Your task to perform on an android device: turn pop-ups off in chrome Image 0: 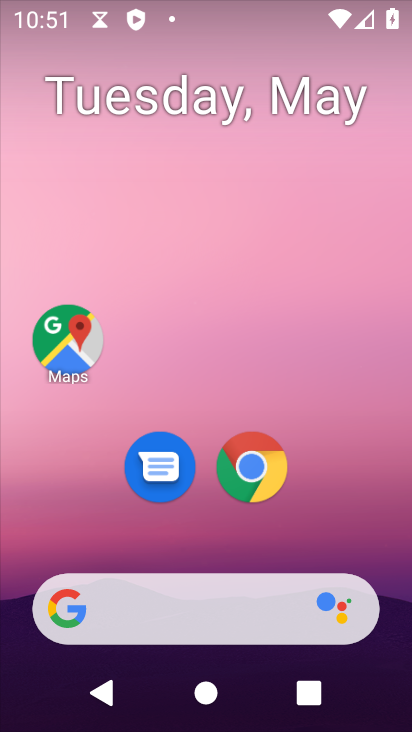
Step 0: drag from (397, 570) to (307, 239)
Your task to perform on an android device: turn pop-ups off in chrome Image 1: 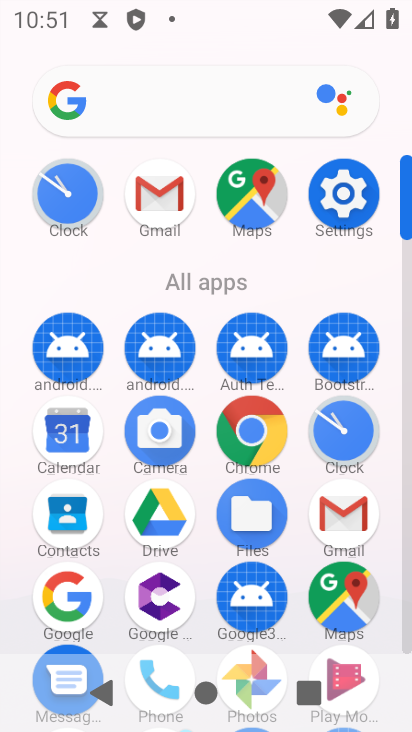
Step 1: click (271, 421)
Your task to perform on an android device: turn pop-ups off in chrome Image 2: 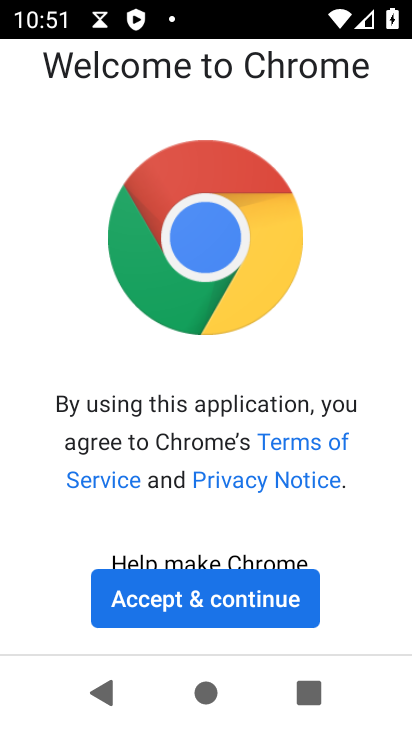
Step 2: click (258, 610)
Your task to perform on an android device: turn pop-ups off in chrome Image 3: 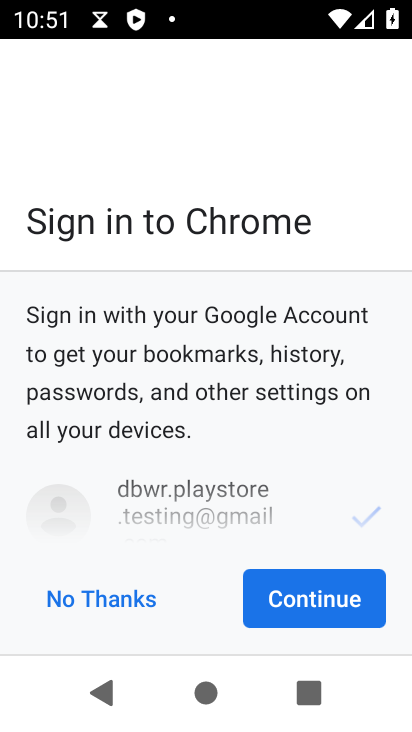
Step 3: click (298, 604)
Your task to perform on an android device: turn pop-ups off in chrome Image 4: 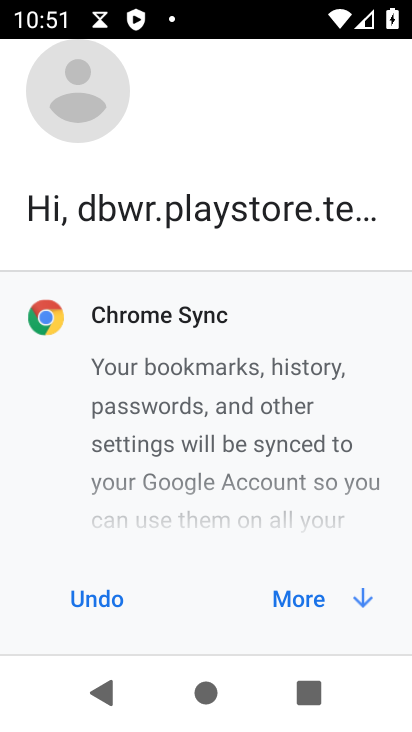
Step 4: click (298, 604)
Your task to perform on an android device: turn pop-ups off in chrome Image 5: 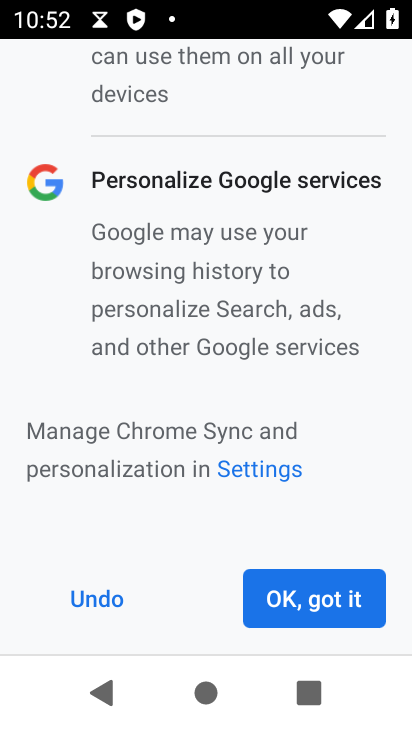
Step 5: click (298, 604)
Your task to perform on an android device: turn pop-ups off in chrome Image 6: 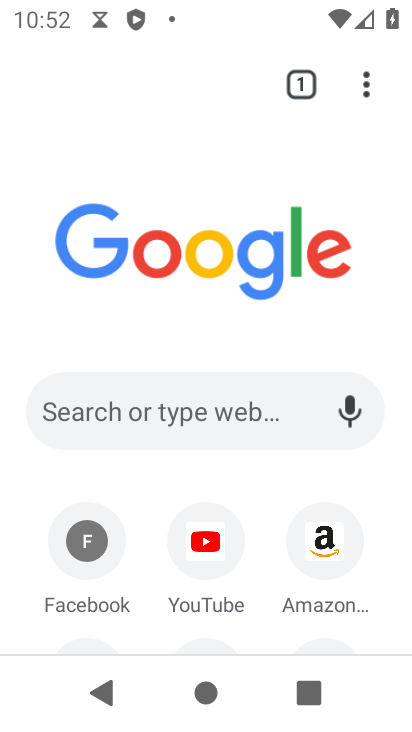
Step 6: click (374, 95)
Your task to perform on an android device: turn pop-ups off in chrome Image 7: 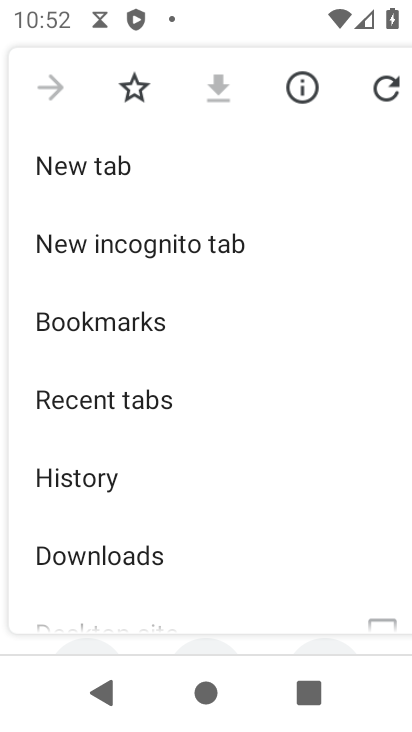
Step 7: drag from (209, 574) to (190, 241)
Your task to perform on an android device: turn pop-ups off in chrome Image 8: 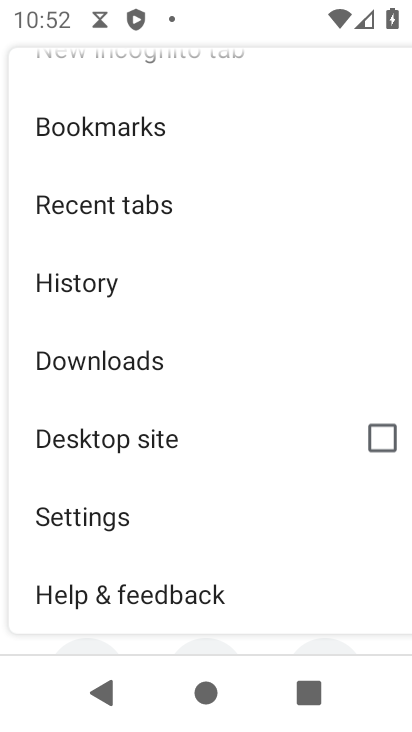
Step 8: click (180, 519)
Your task to perform on an android device: turn pop-ups off in chrome Image 9: 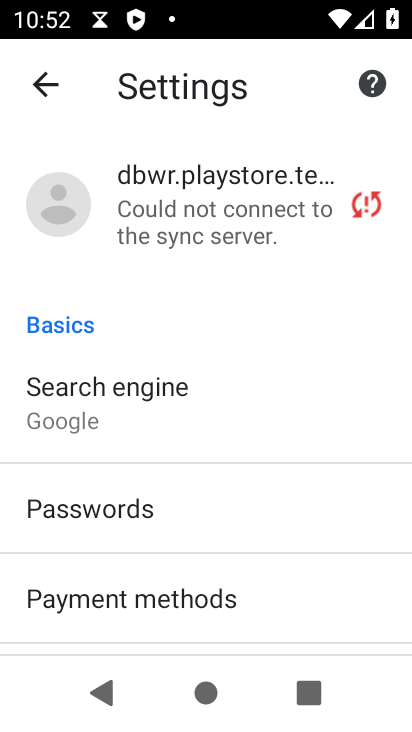
Step 9: drag from (209, 581) to (174, 127)
Your task to perform on an android device: turn pop-ups off in chrome Image 10: 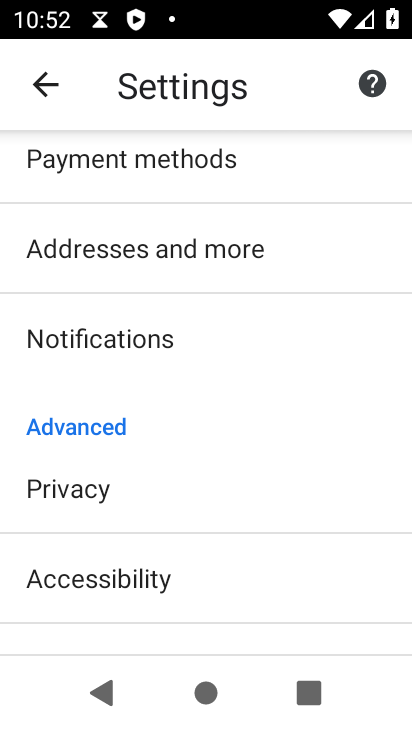
Step 10: drag from (196, 533) to (173, 232)
Your task to perform on an android device: turn pop-ups off in chrome Image 11: 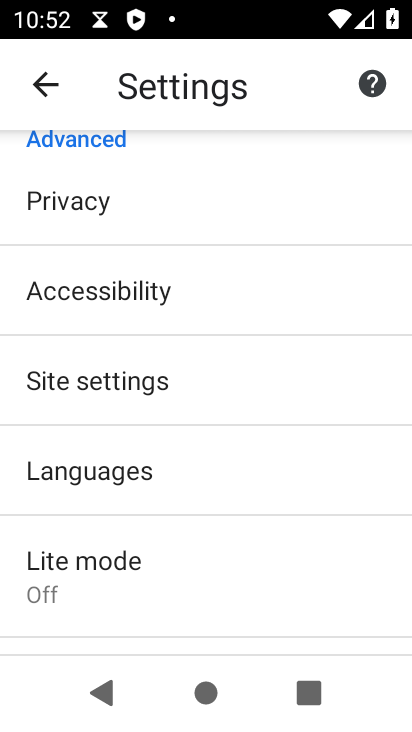
Step 11: click (178, 371)
Your task to perform on an android device: turn pop-ups off in chrome Image 12: 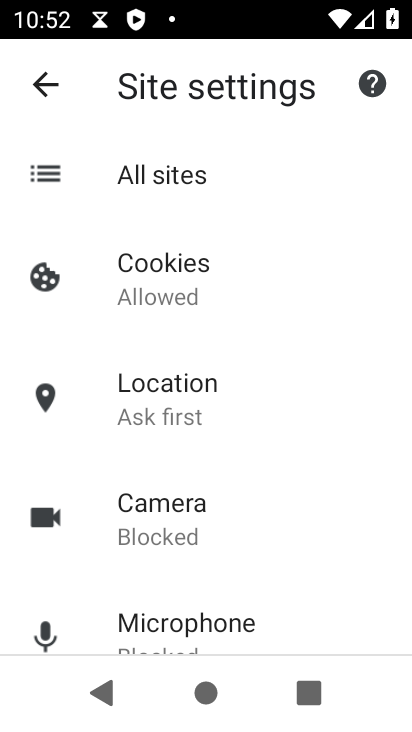
Step 12: drag from (229, 519) to (223, 131)
Your task to perform on an android device: turn pop-ups off in chrome Image 13: 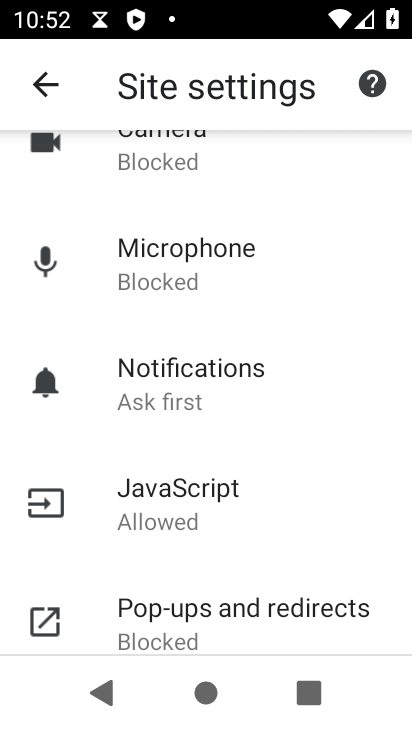
Step 13: click (251, 604)
Your task to perform on an android device: turn pop-ups off in chrome Image 14: 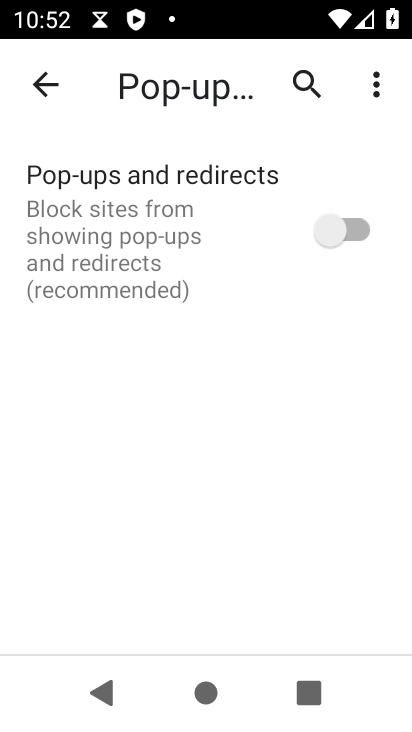
Step 14: task complete